Your task to perform on an android device: empty trash in the gmail app Image 0: 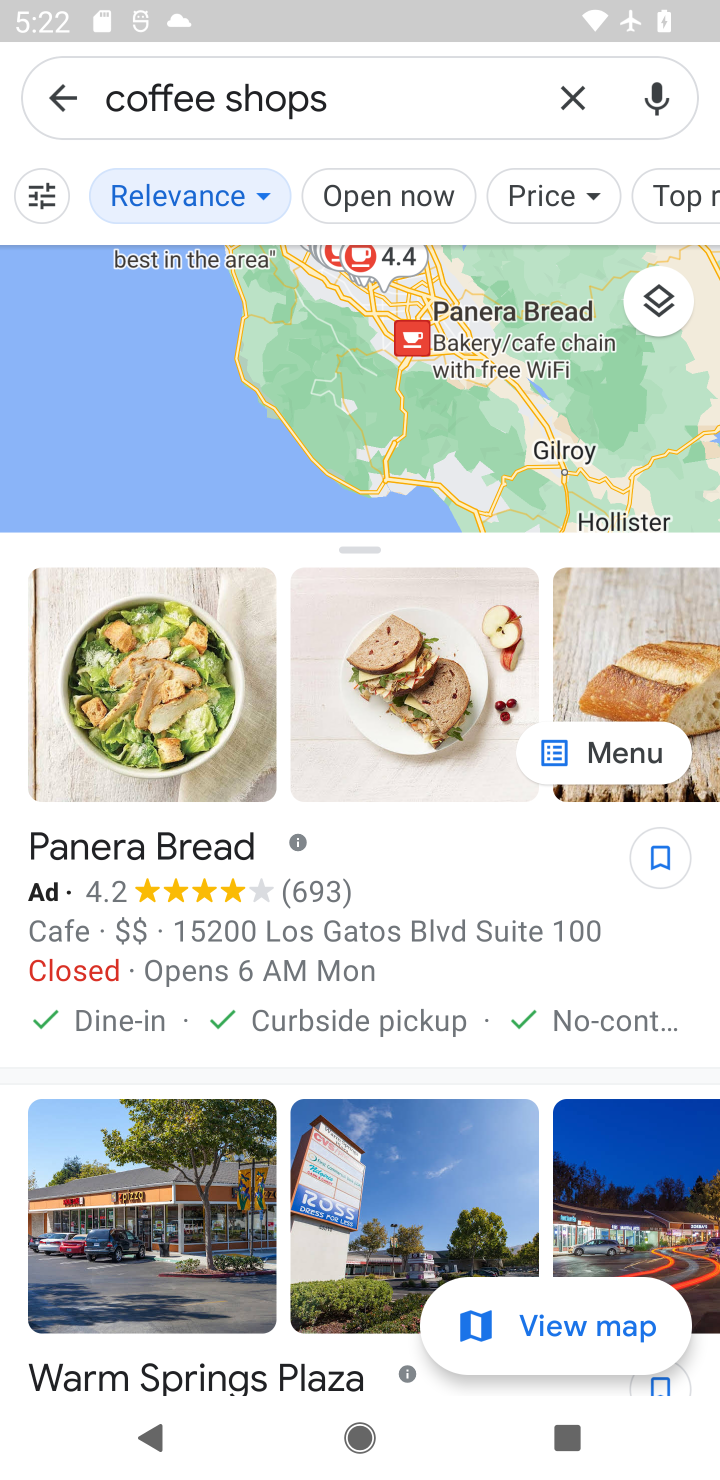
Step 0: press home button
Your task to perform on an android device: empty trash in the gmail app Image 1: 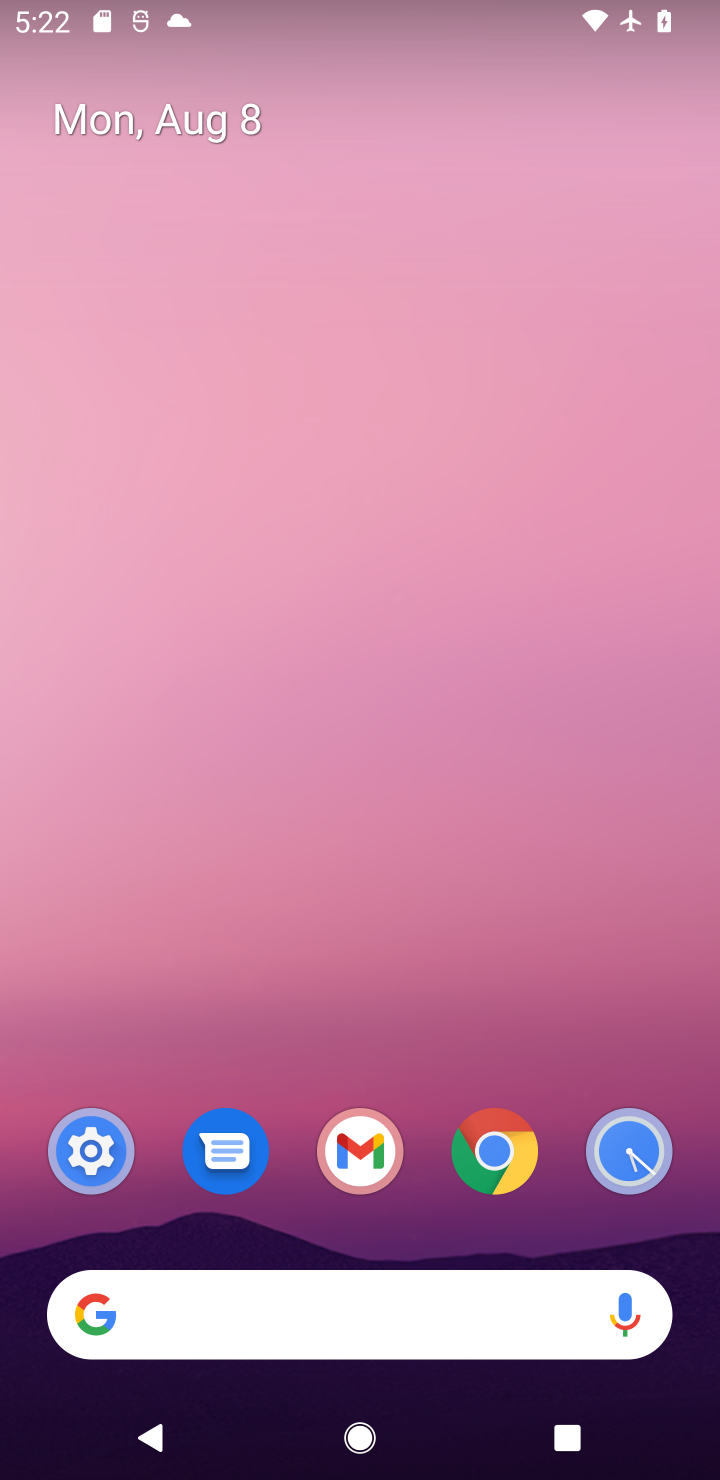
Step 1: click (356, 1176)
Your task to perform on an android device: empty trash in the gmail app Image 2: 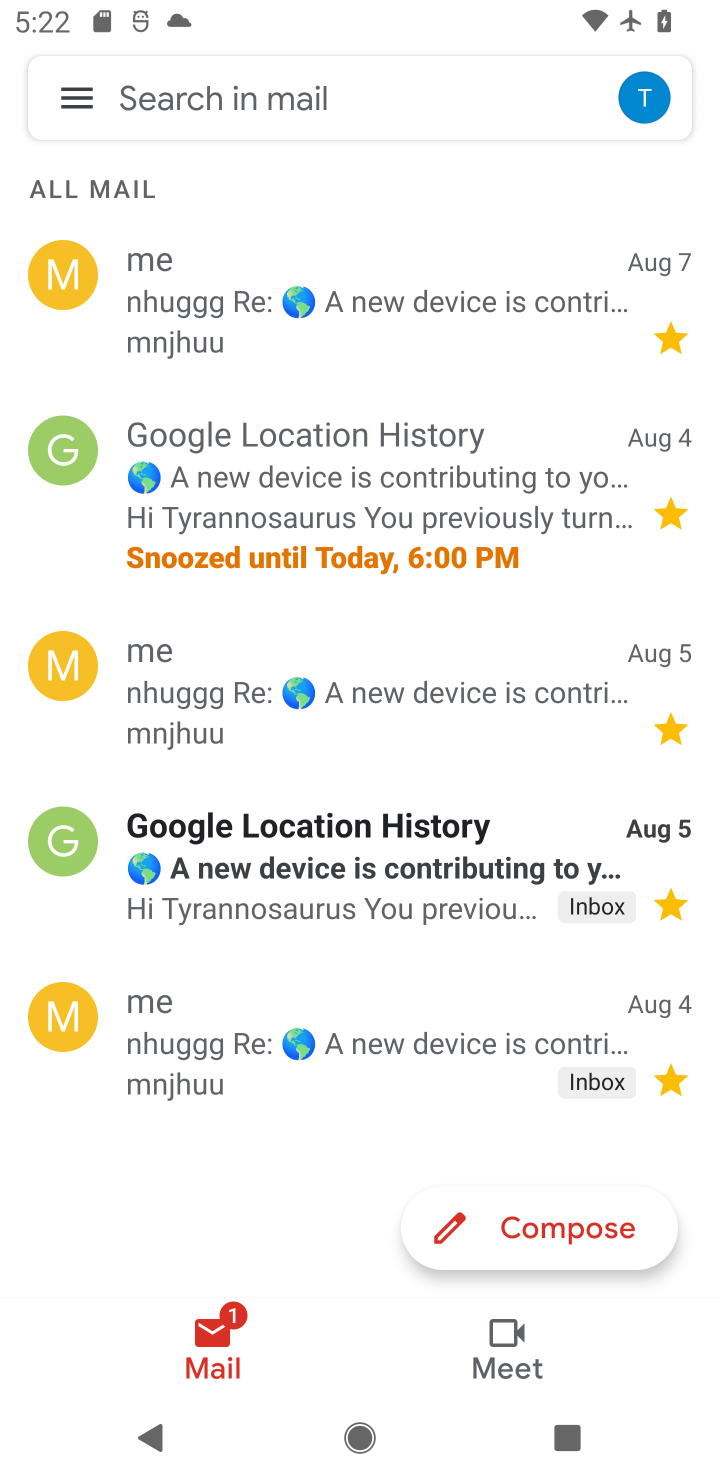
Step 2: click (69, 85)
Your task to perform on an android device: empty trash in the gmail app Image 3: 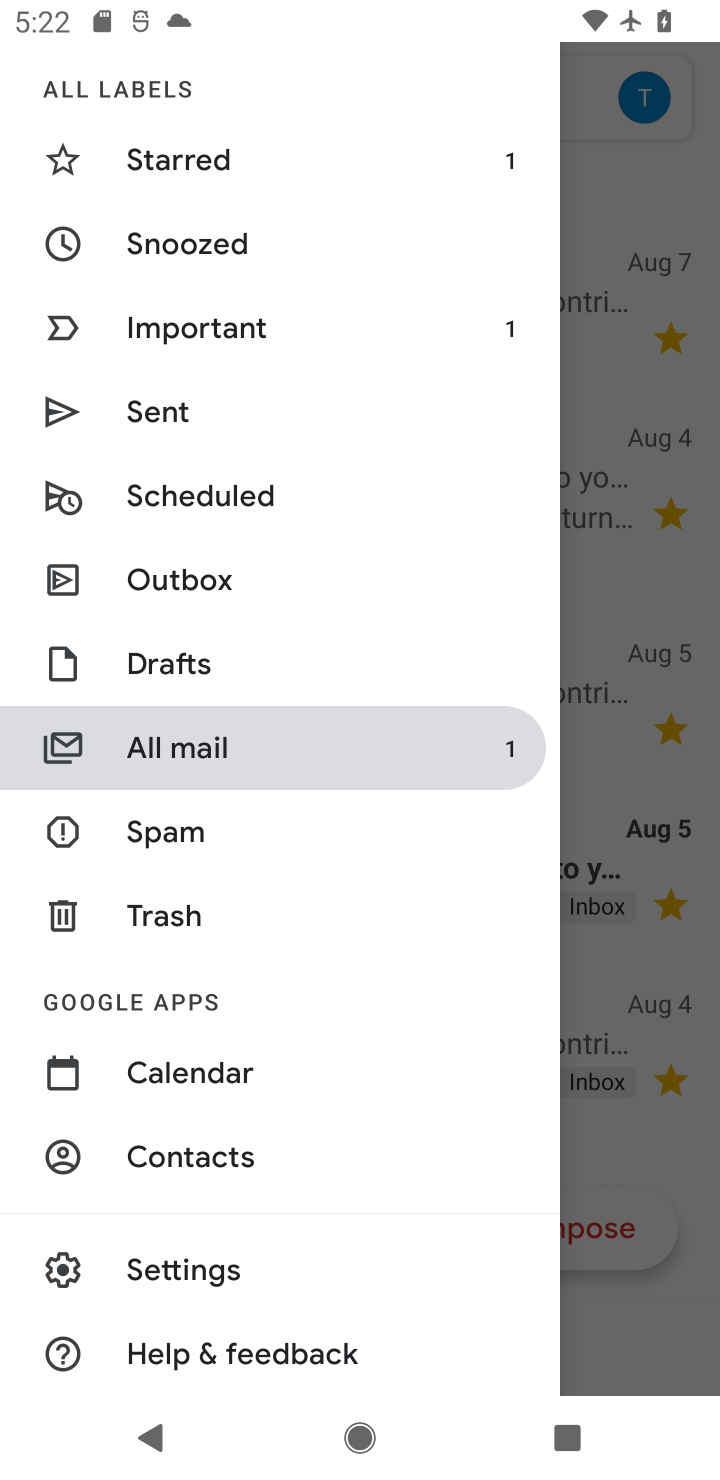
Step 3: click (209, 924)
Your task to perform on an android device: empty trash in the gmail app Image 4: 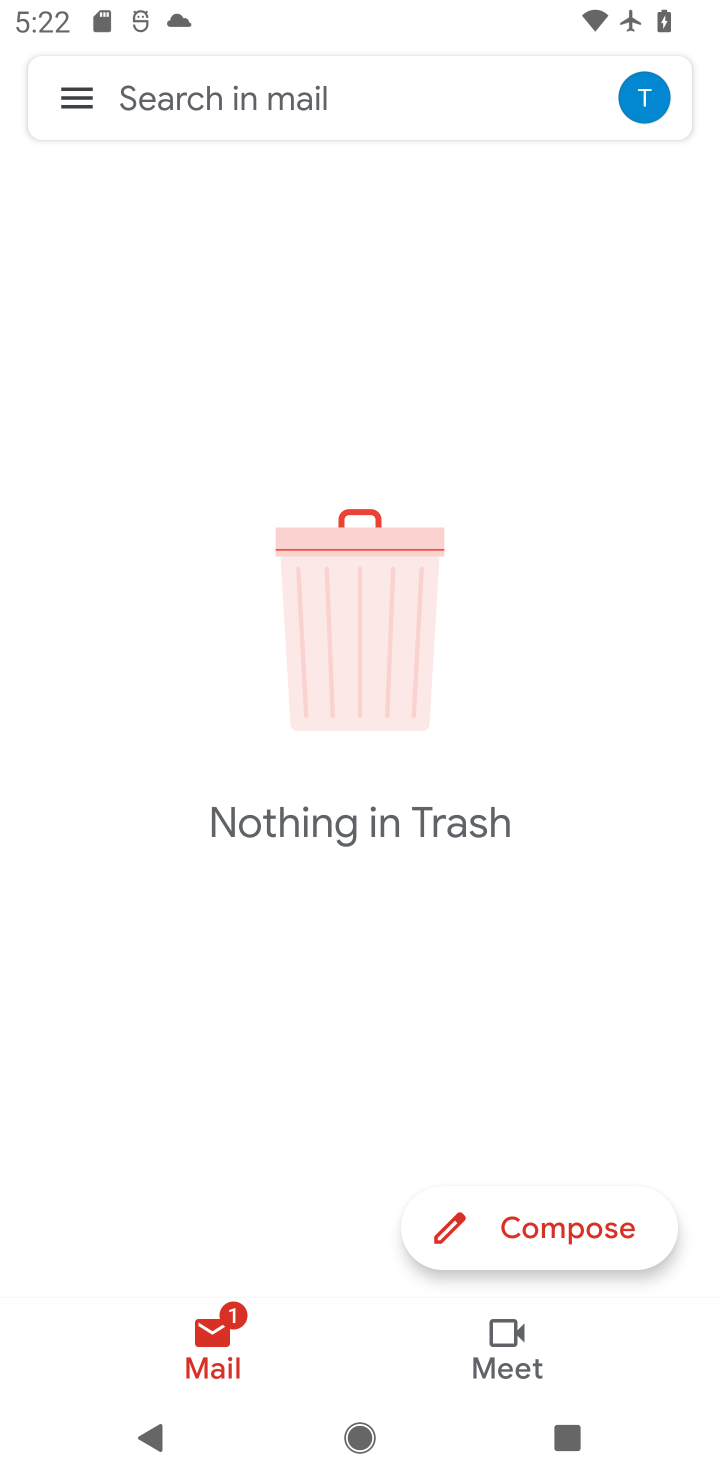
Step 4: task complete